Your task to perform on an android device: Open the phone app and click the voicemail tab. Image 0: 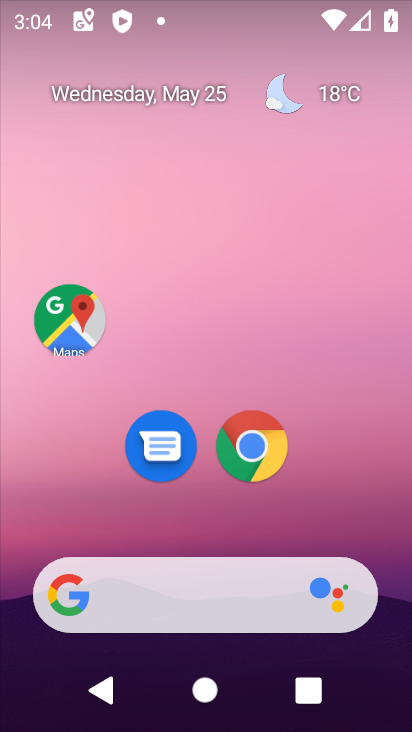
Step 0: drag from (192, 608) to (208, 270)
Your task to perform on an android device: Open the phone app and click the voicemail tab. Image 1: 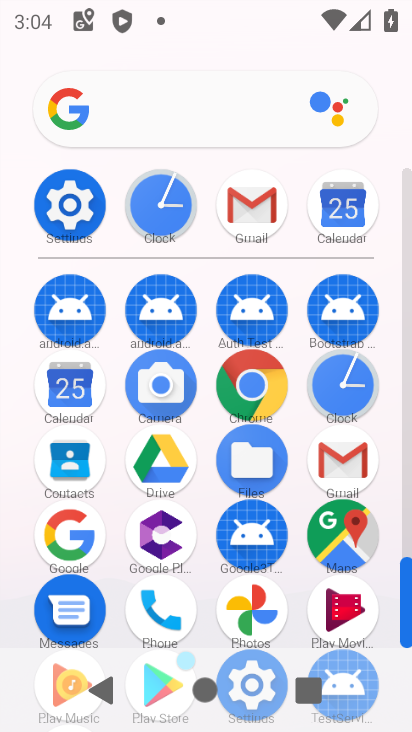
Step 1: click (154, 589)
Your task to perform on an android device: Open the phone app and click the voicemail tab. Image 2: 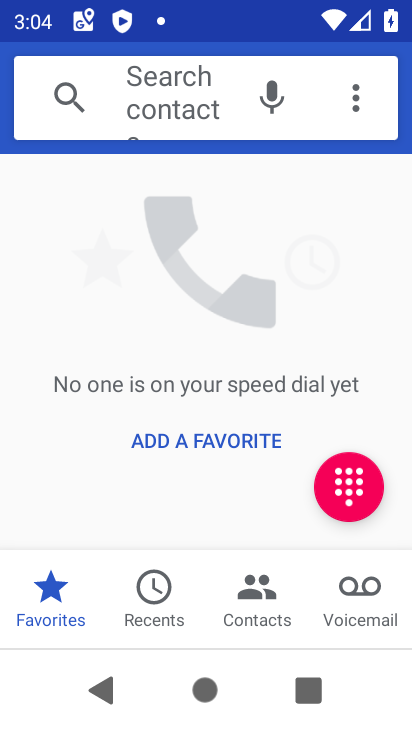
Step 2: click (351, 592)
Your task to perform on an android device: Open the phone app and click the voicemail tab. Image 3: 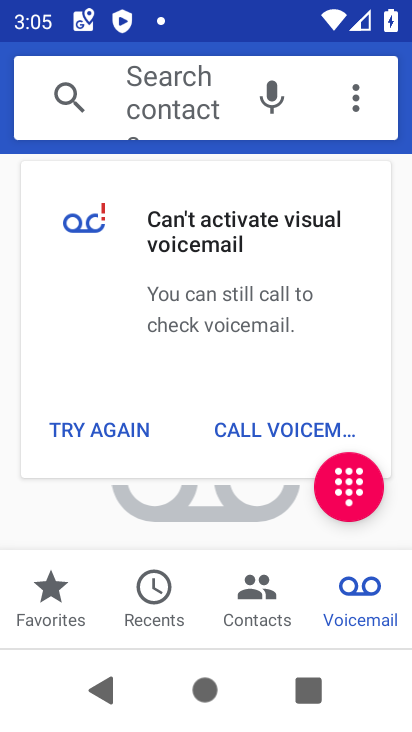
Step 3: task complete